Your task to perform on an android device: Go to Maps Image 0: 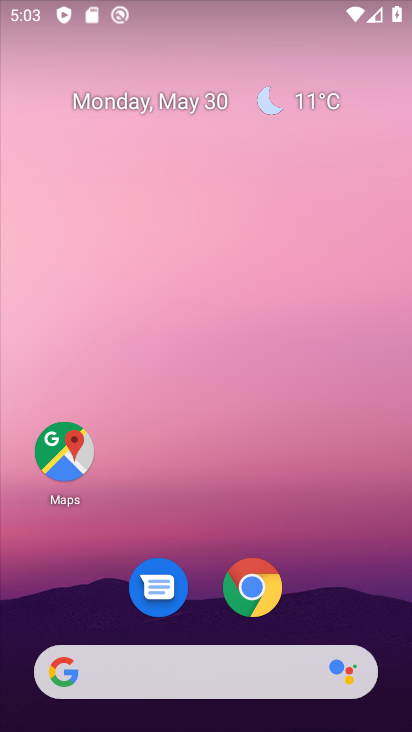
Step 0: drag from (313, 526) to (240, 3)
Your task to perform on an android device: Go to Maps Image 1: 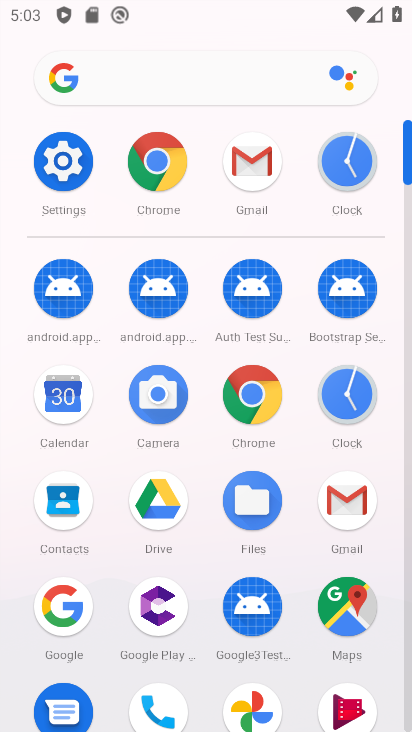
Step 1: drag from (11, 556) to (14, 240)
Your task to perform on an android device: Go to Maps Image 2: 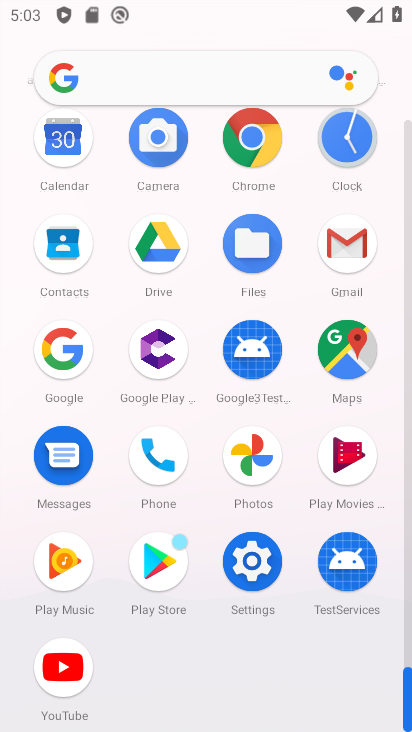
Step 2: click (351, 342)
Your task to perform on an android device: Go to Maps Image 3: 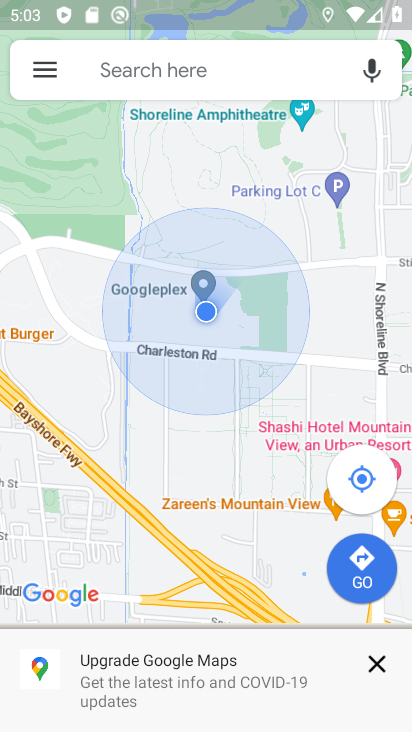
Step 3: task complete